Your task to perform on an android device: Toggle the flashlight Image 0: 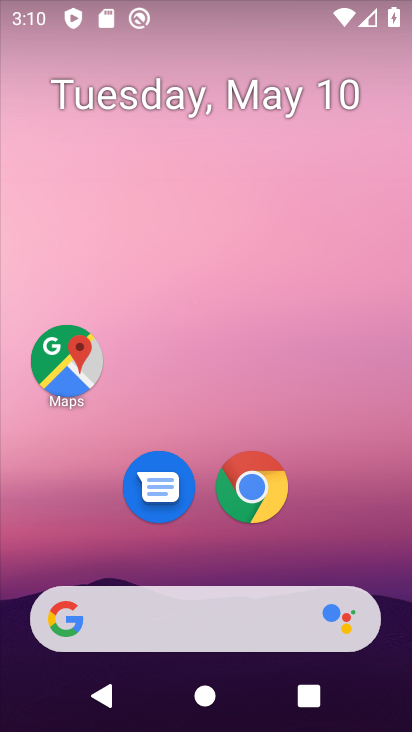
Step 0: press home button
Your task to perform on an android device: Toggle the flashlight Image 1: 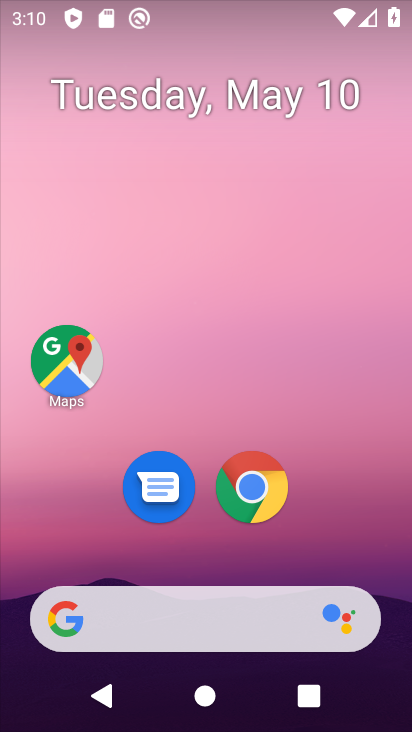
Step 1: drag from (199, 542) to (221, 65)
Your task to perform on an android device: Toggle the flashlight Image 2: 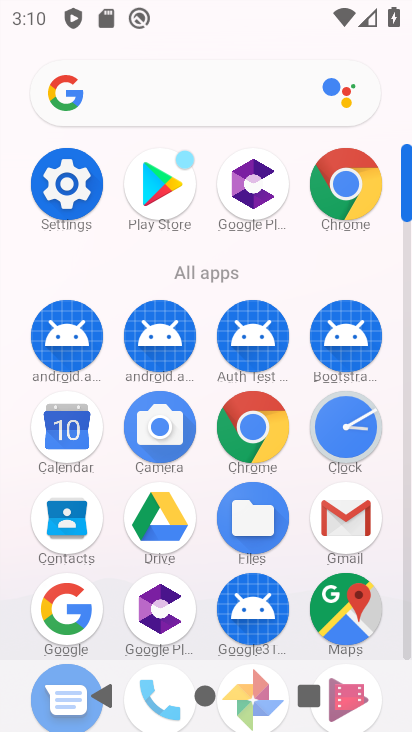
Step 2: click (65, 187)
Your task to perform on an android device: Toggle the flashlight Image 3: 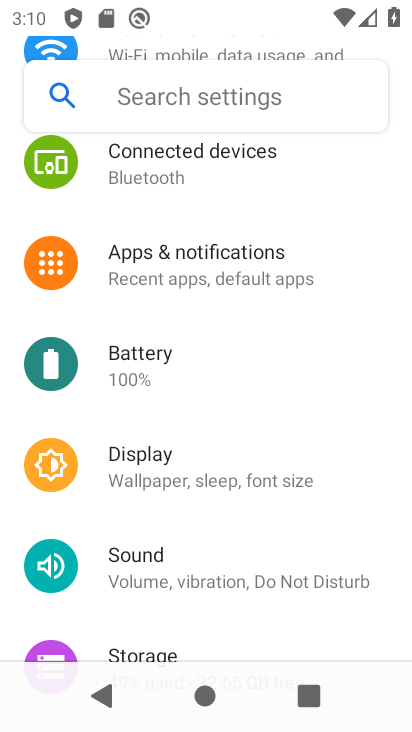
Step 3: click (179, 84)
Your task to perform on an android device: Toggle the flashlight Image 4: 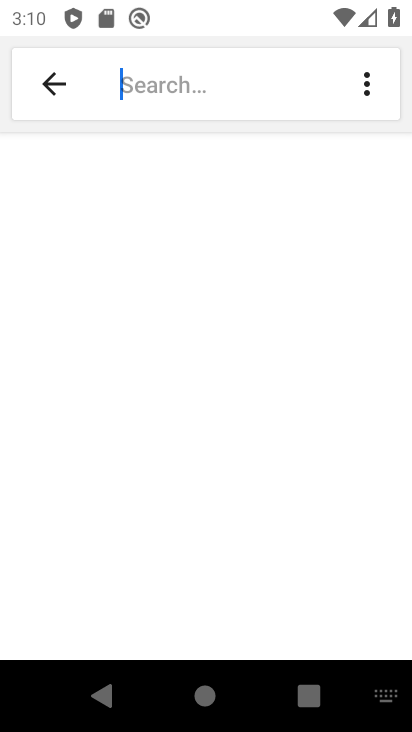
Step 4: type "flashlight"
Your task to perform on an android device: Toggle the flashlight Image 5: 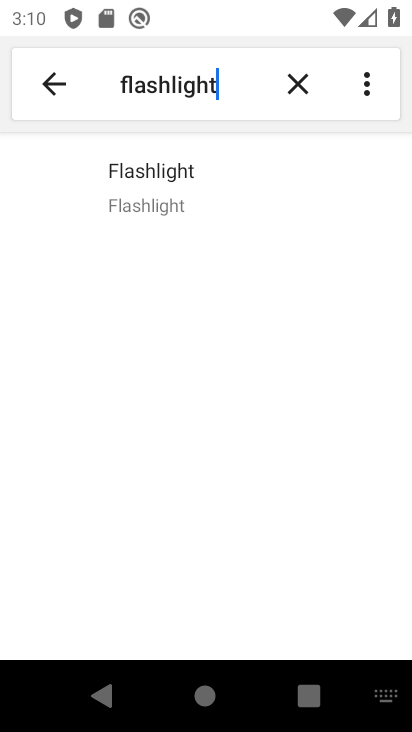
Step 5: click (144, 204)
Your task to perform on an android device: Toggle the flashlight Image 6: 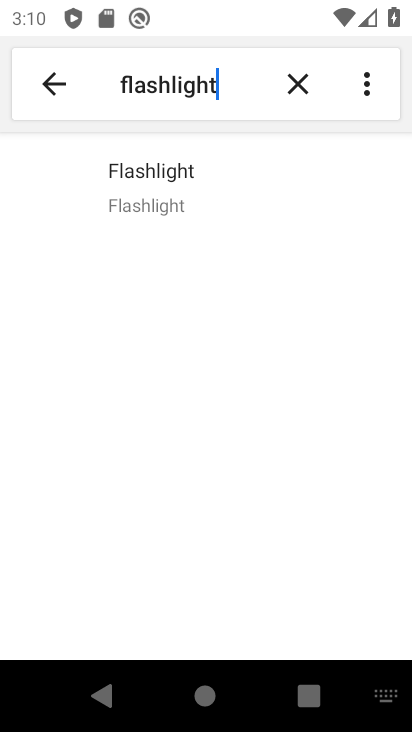
Step 6: click (158, 186)
Your task to perform on an android device: Toggle the flashlight Image 7: 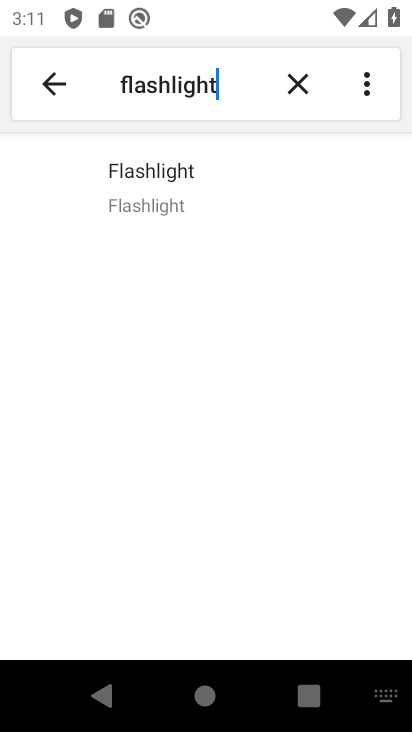
Step 7: task complete